Your task to perform on an android device: Open ESPN.com Image 0: 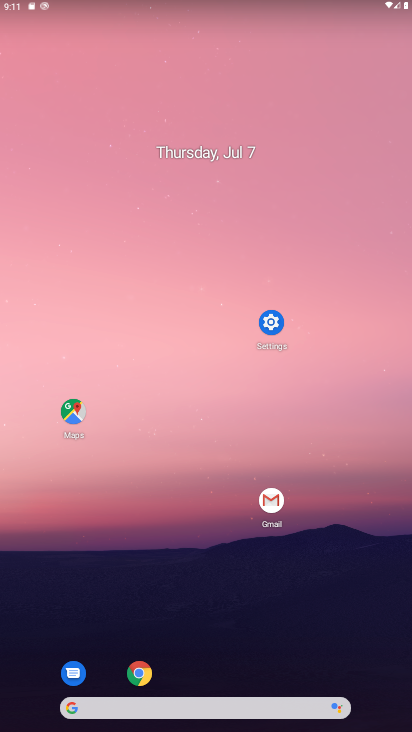
Step 0: click (138, 664)
Your task to perform on an android device: Open ESPN.com Image 1: 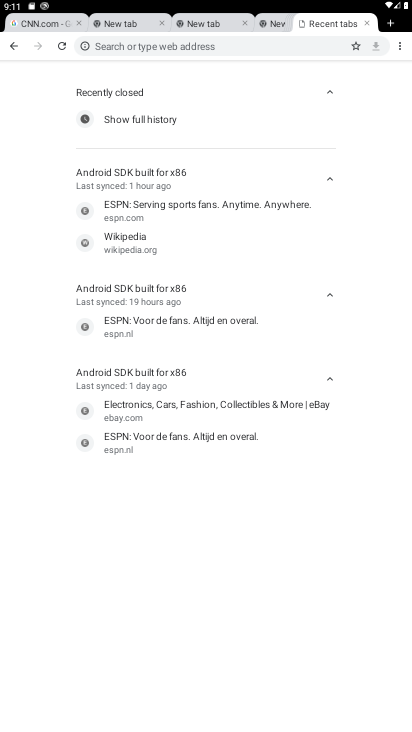
Step 1: click (317, 48)
Your task to perform on an android device: Open ESPN.com Image 2: 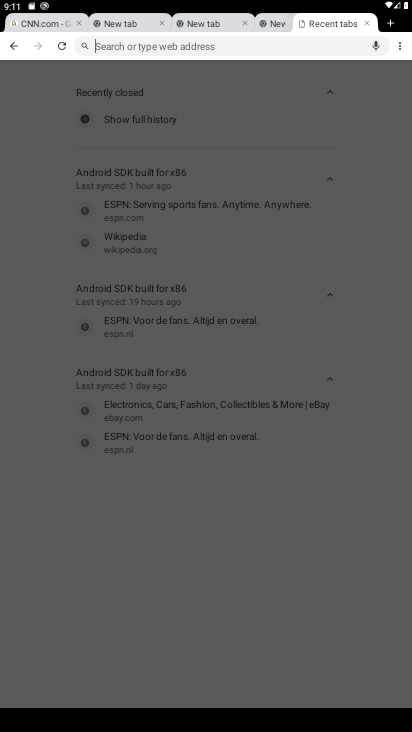
Step 2: type "ESPN.com"
Your task to perform on an android device: Open ESPN.com Image 3: 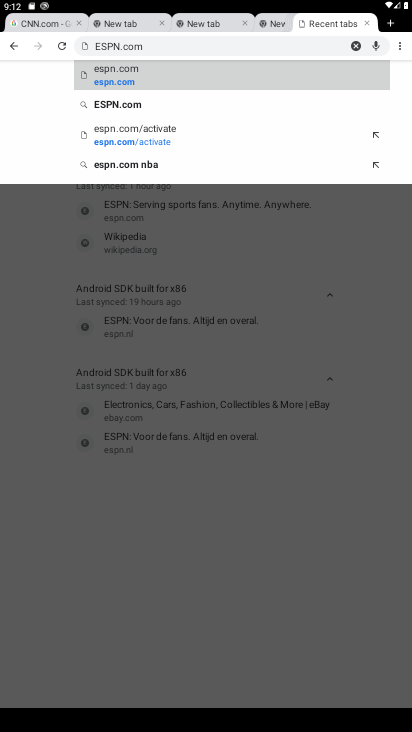
Step 3: click (131, 100)
Your task to perform on an android device: Open ESPN.com Image 4: 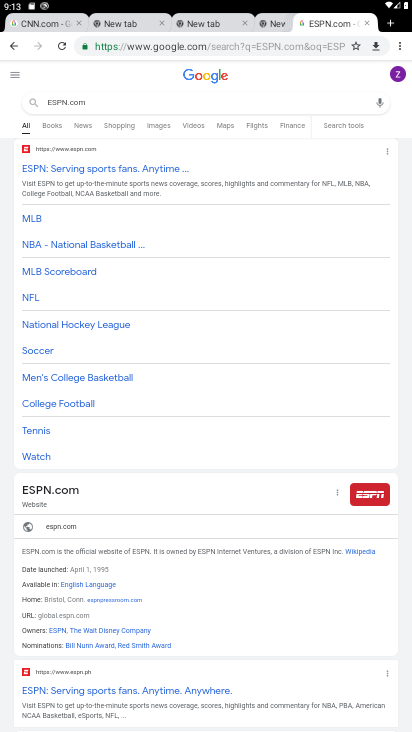
Step 4: task complete